Your task to perform on an android device: turn vacation reply on in the gmail app Image 0: 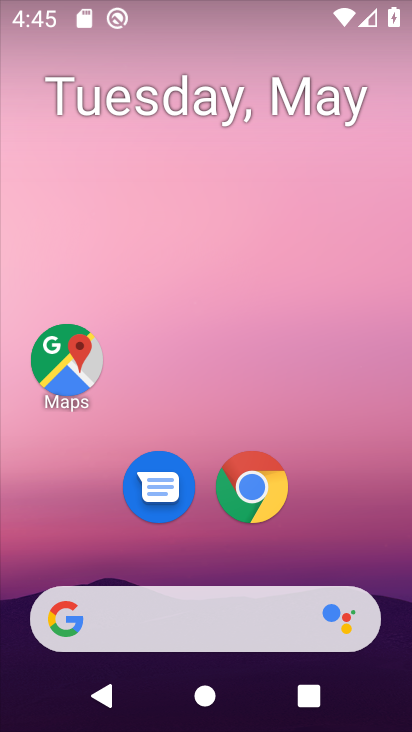
Step 0: drag from (340, 561) to (297, 23)
Your task to perform on an android device: turn vacation reply on in the gmail app Image 1: 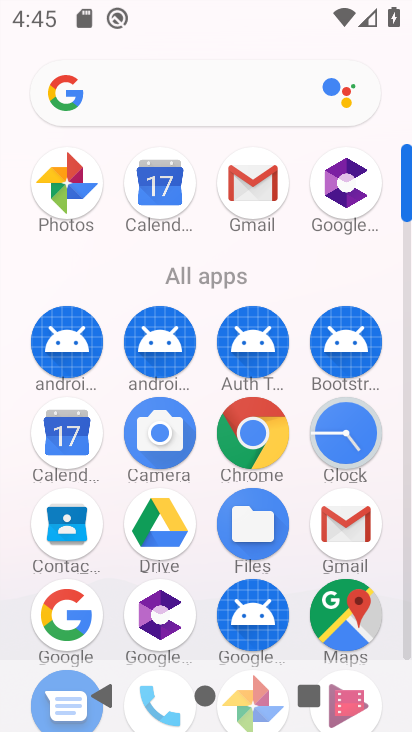
Step 1: click (242, 207)
Your task to perform on an android device: turn vacation reply on in the gmail app Image 2: 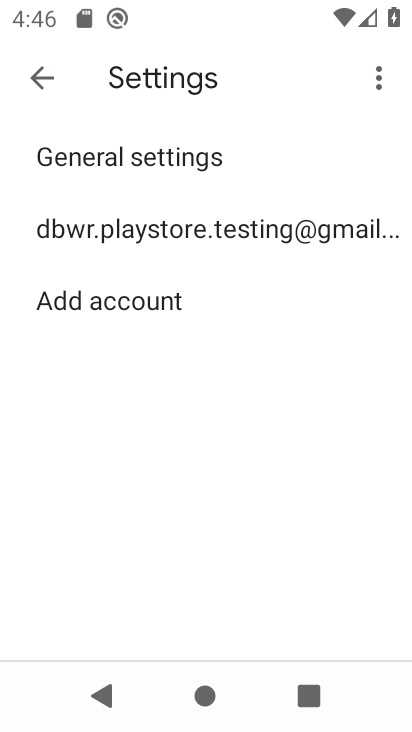
Step 2: click (41, 90)
Your task to perform on an android device: turn vacation reply on in the gmail app Image 3: 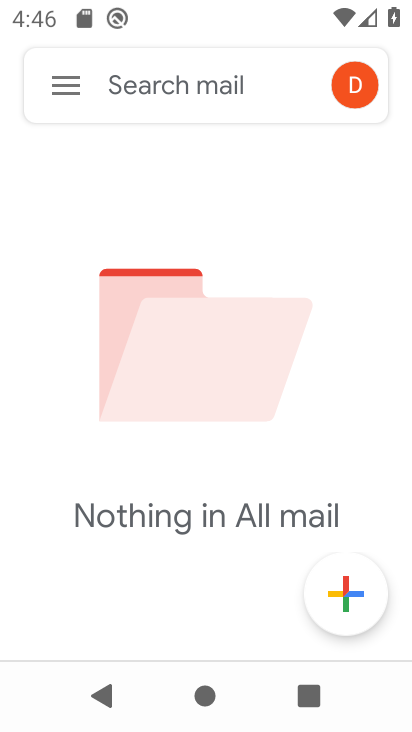
Step 3: click (41, 90)
Your task to perform on an android device: turn vacation reply on in the gmail app Image 4: 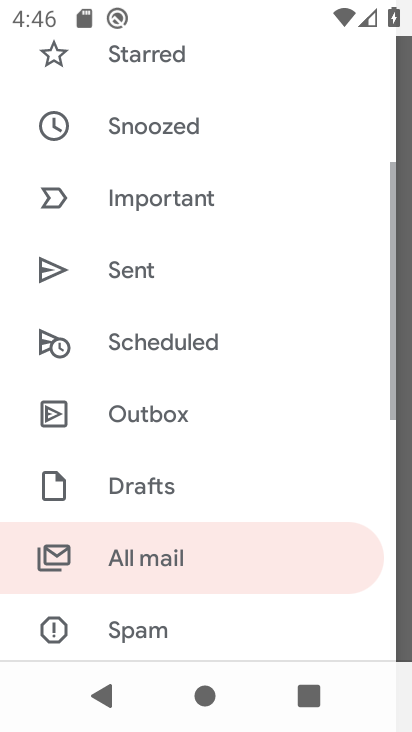
Step 4: drag from (147, 586) to (188, 183)
Your task to perform on an android device: turn vacation reply on in the gmail app Image 5: 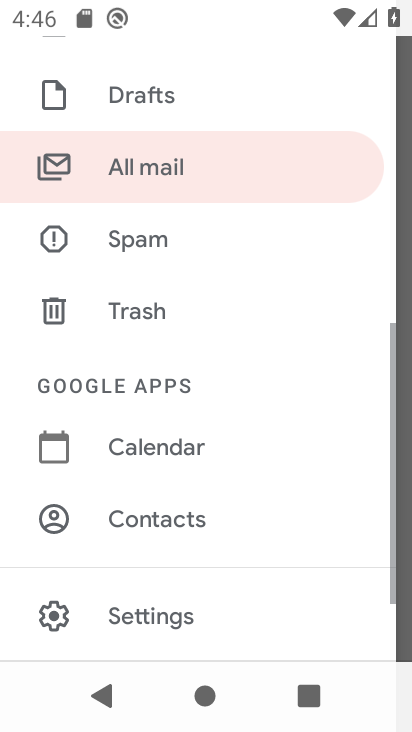
Step 5: click (203, 604)
Your task to perform on an android device: turn vacation reply on in the gmail app Image 6: 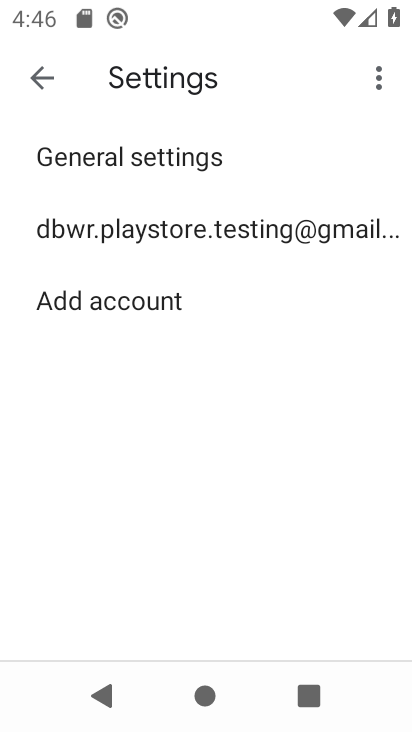
Step 6: click (110, 161)
Your task to perform on an android device: turn vacation reply on in the gmail app Image 7: 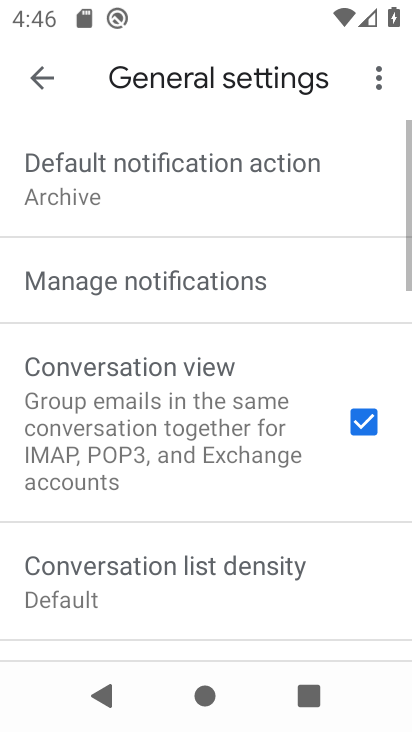
Step 7: click (50, 95)
Your task to perform on an android device: turn vacation reply on in the gmail app Image 8: 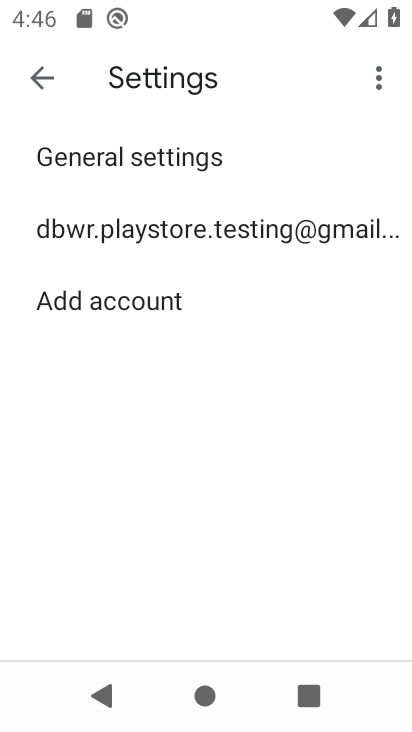
Step 8: click (136, 219)
Your task to perform on an android device: turn vacation reply on in the gmail app Image 9: 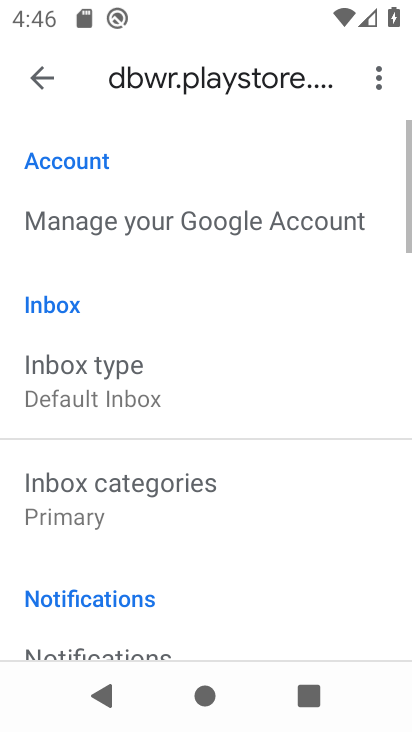
Step 9: drag from (206, 487) to (235, 159)
Your task to perform on an android device: turn vacation reply on in the gmail app Image 10: 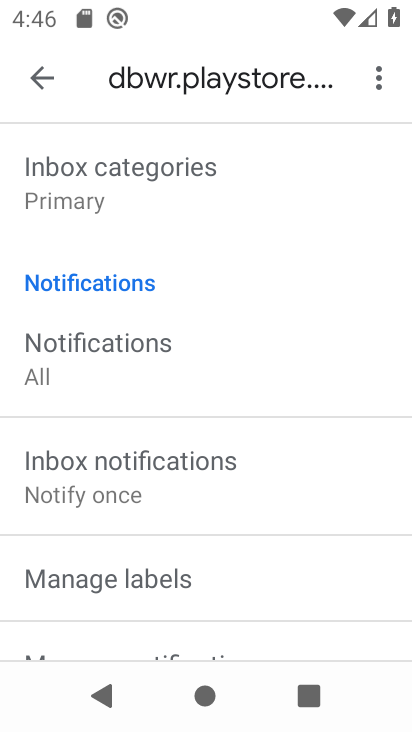
Step 10: drag from (235, 587) to (314, 108)
Your task to perform on an android device: turn vacation reply on in the gmail app Image 11: 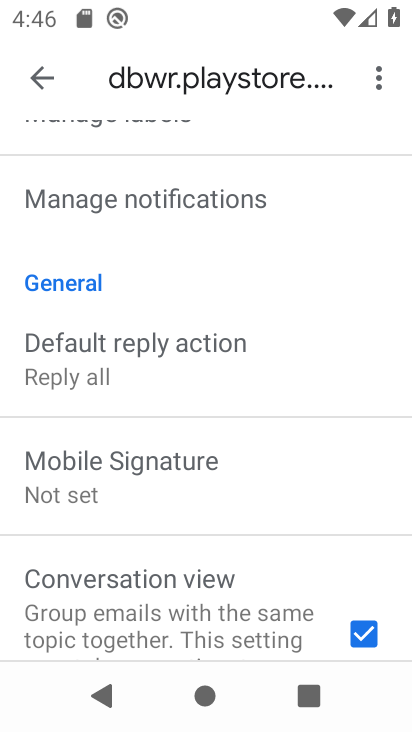
Step 11: drag from (252, 498) to (278, 255)
Your task to perform on an android device: turn vacation reply on in the gmail app Image 12: 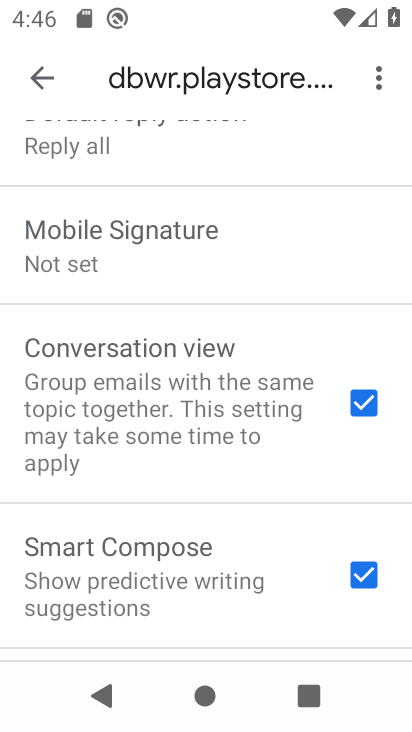
Step 12: drag from (183, 557) to (220, 231)
Your task to perform on an android device: turn vacation reply on in the gmail app Image 13: 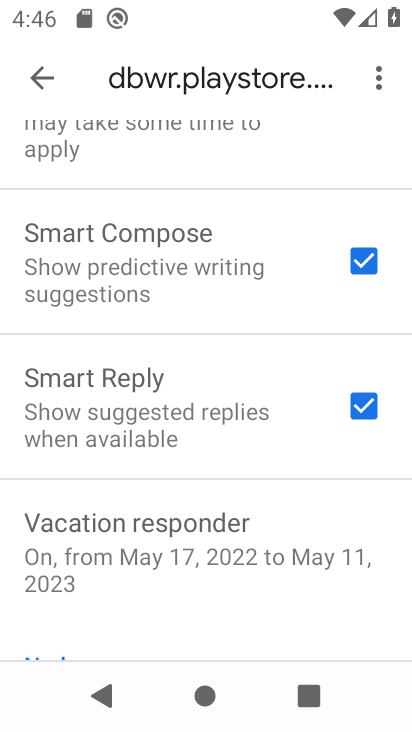
Step 13: click (157, 558)
Your task to perform on an android device: turn vacation reply on in the gmail app Image 14: 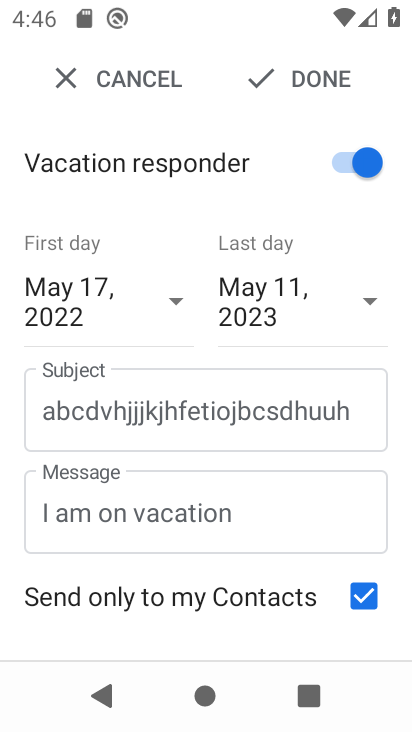
Step 14: click (331, 85)
Your task to perform on an android device: turn vacation reply on in the gmail app Image 15: 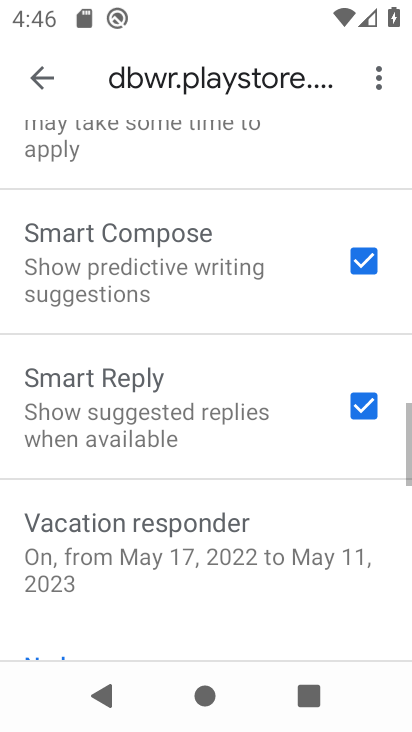
Step 15: task complete